Your task to perform on an android device: turn on location history Image 0: 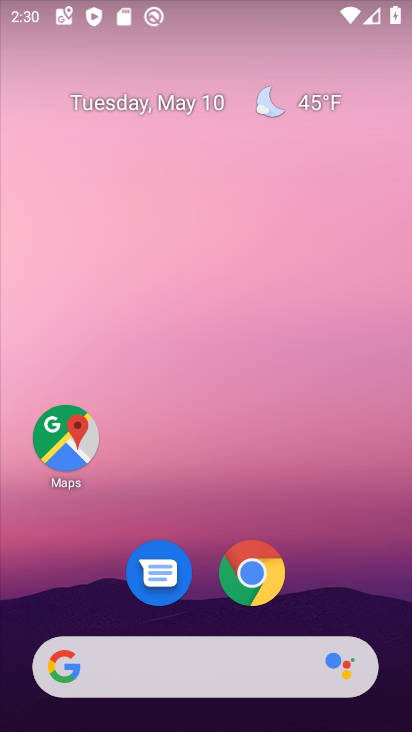
Step 0: drag from (208, 608) to (216, 211)
Your task to perform on an android device: turn on location history Image 1: 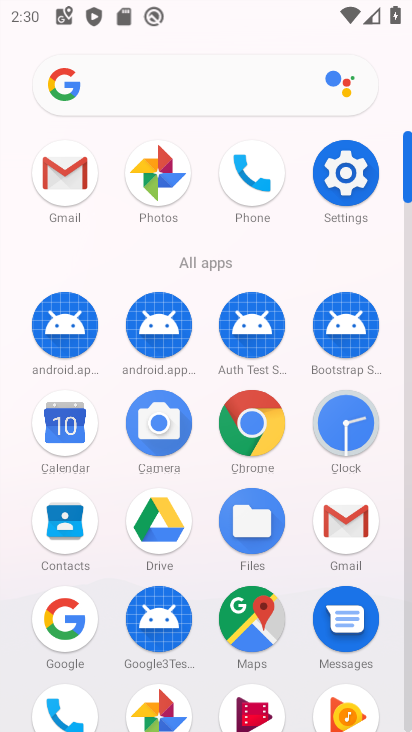
Step 1: drag from (110, 580) to (161, 193)
Your task to perform on an android device: turn on location history Image 2: 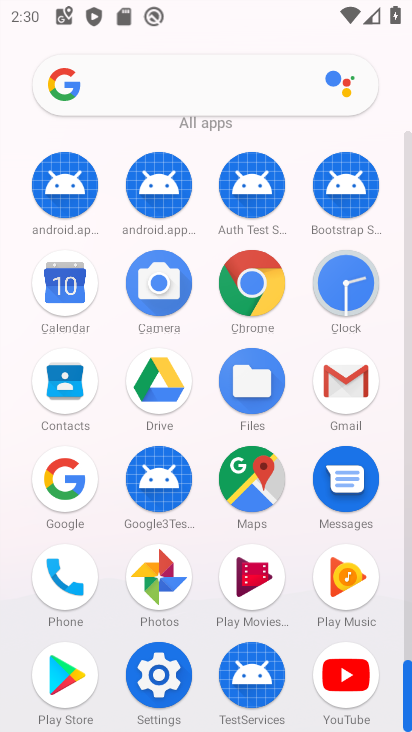
Step 2: click (134, 676)
Your task to perform on an android device: turn on location history Image 3: 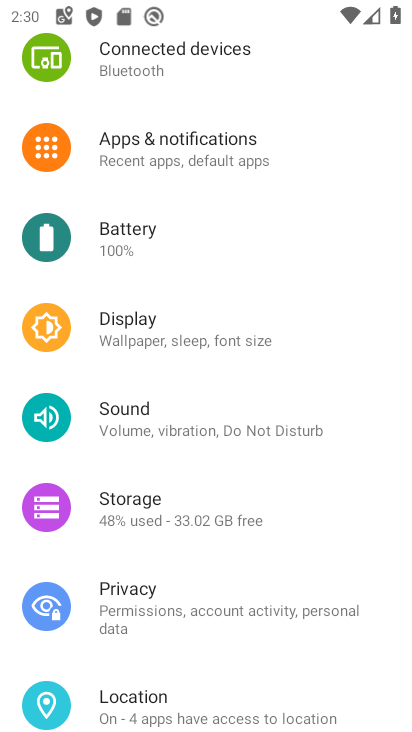
Step 3: click (190, 693)
Your task to perform on an android device: turn on location history Image 4: 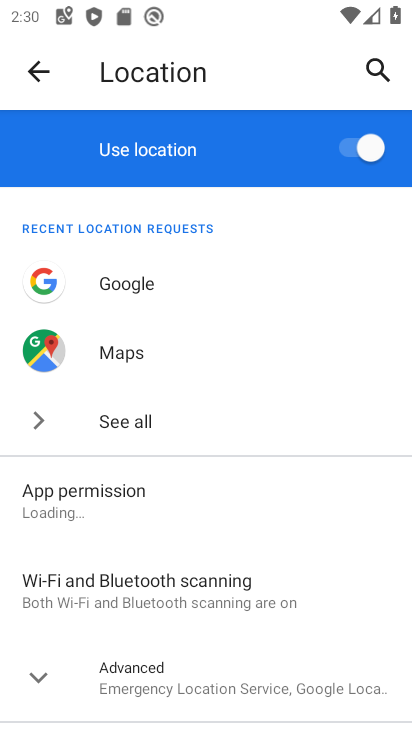
Step 4: drag from (202, 608) to (203, 292)
Your task to perform on an android device: turn on location history Image 5: 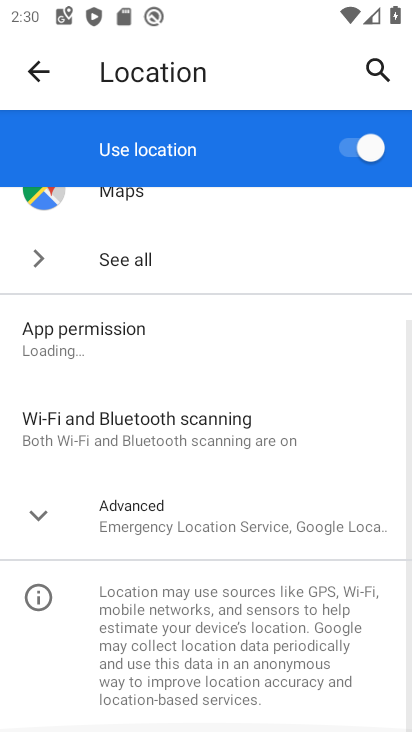
Step 5: click (130, 503)
Your task to perform on an android device: turn on location history Image 6: 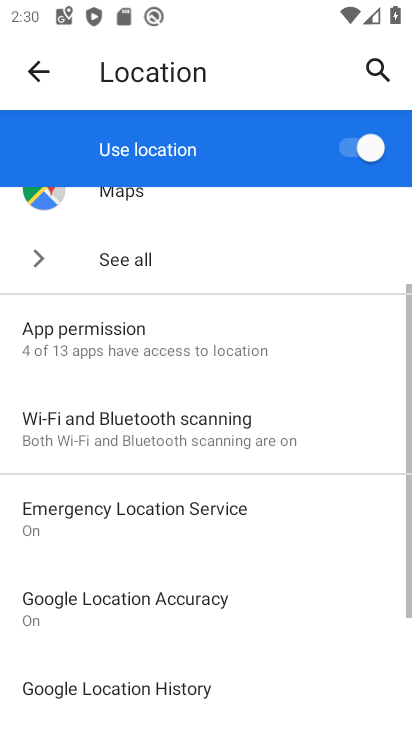
Step 6: drag from (164, 607) to (178, 349)
Your task to perform on an android device: turn on location history Image 7: 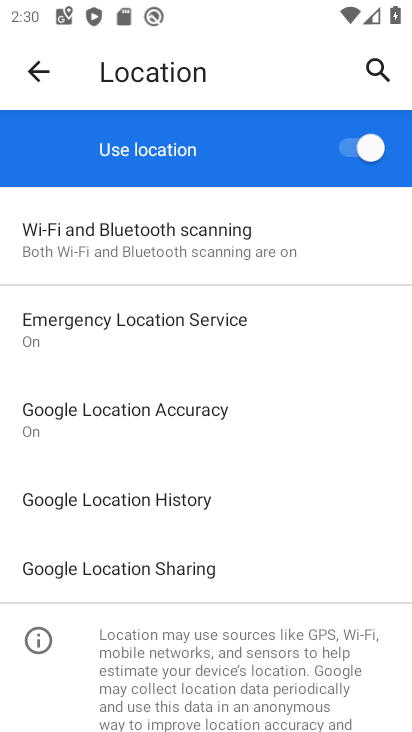
Step 7: click (154, 491)
Your task to perform on an android device: turn on location history Image 8: 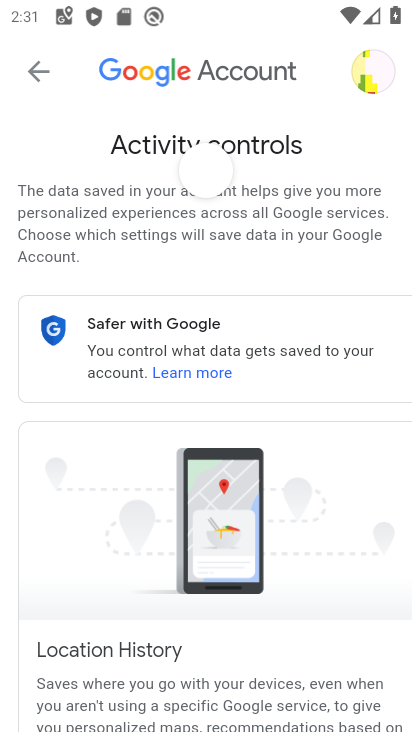
Step 8: task complete